Your task to perform on an android device: Is it going to rain tomorrow? Image 0: 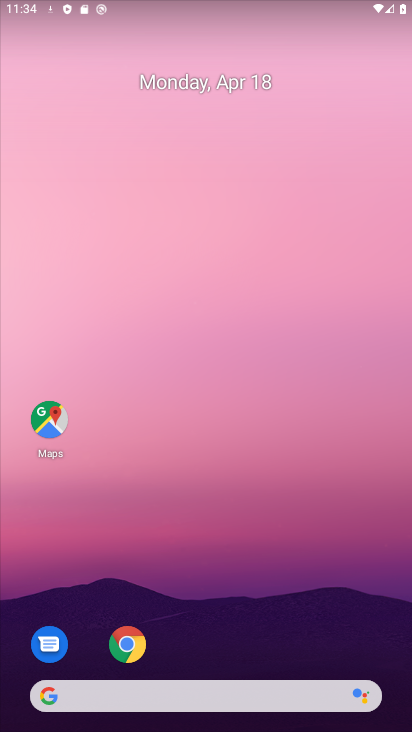
Step 0: drag from (28, 288) to (379, 299)
Your task to perform on an android device: Is it going to rain tomorrow? Image 1: 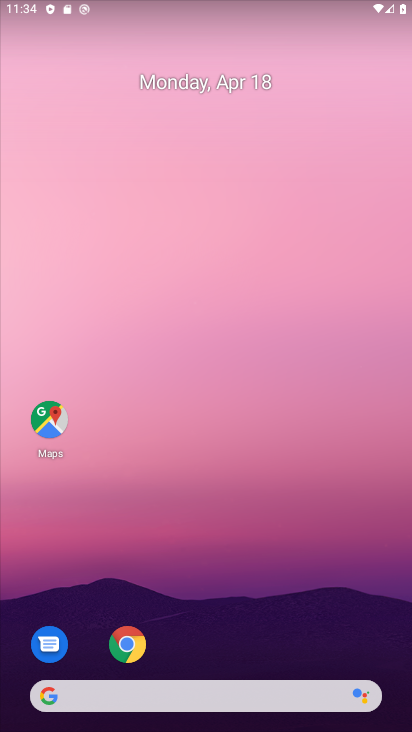
Step 1: drag from (13, 298) to (398, 320)
Your task to perform on an android device: Is it going to rain tomorrow? Image 2: 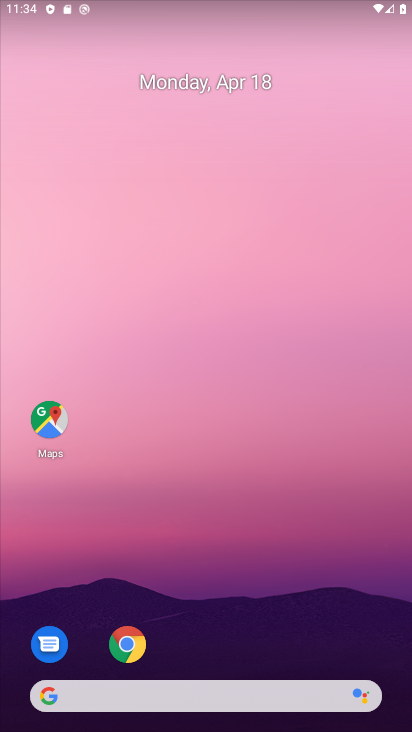
Step 2: drag from (1, 344) to (362, 336)
Your task to perform on an android device: Is it going to rain tomorrow? Image 3: 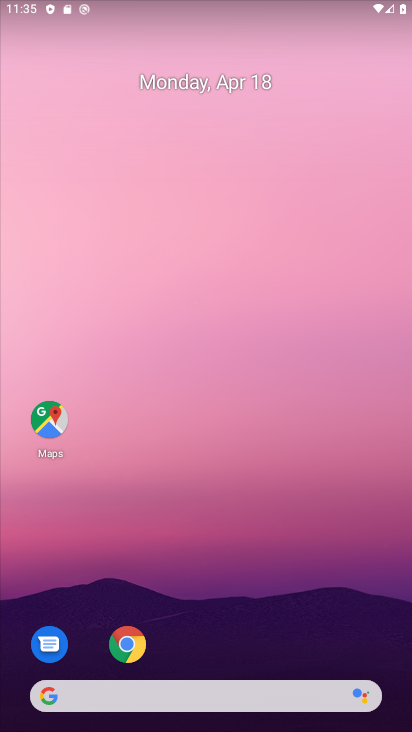
Step 3: drag from (251, 327) to (388, 326)
Your task to perform on an android device: Is it going to rain tomorrow? Image 4: 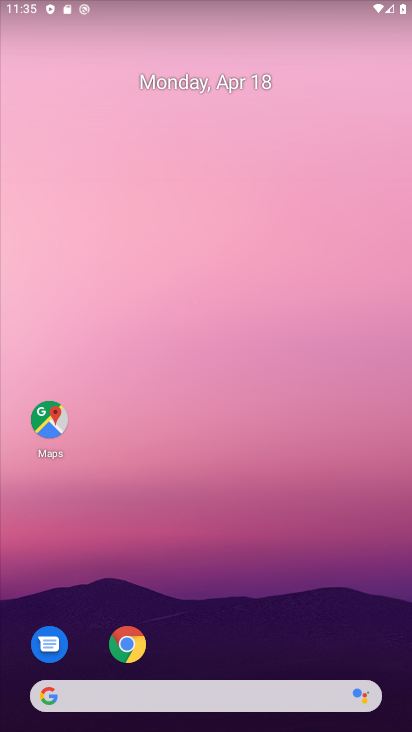
Step 4: drag from (140, 549) to (380, 548)
Your task to perform on an android device: Is it going to rain tomorrow? Image 5: 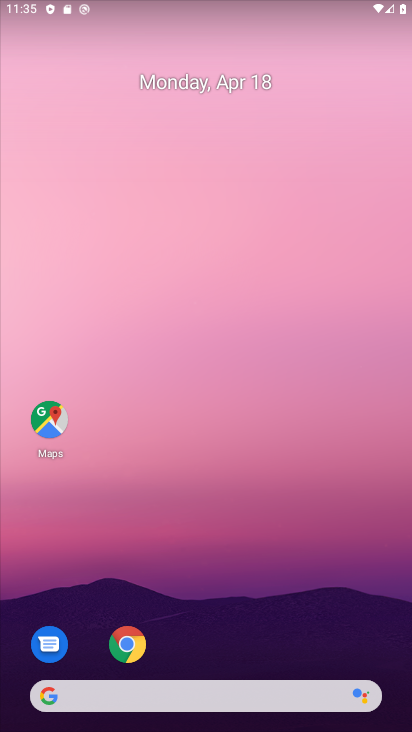
Step 5: drag from (114, 499) to (386, 576)
Your task to perform on an android device: Is it going to rain tomorrow? Image 6: 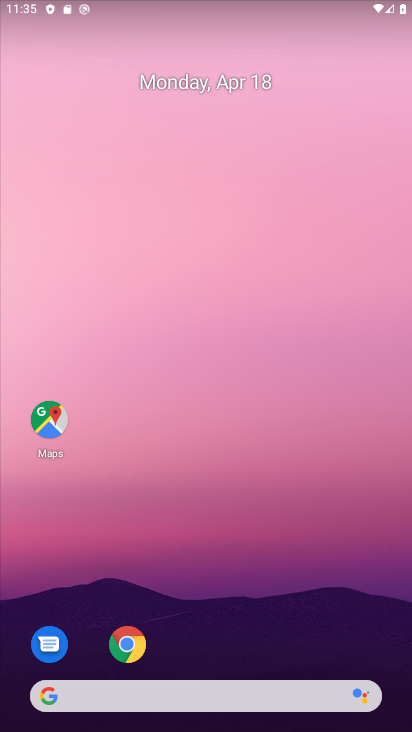
Step 6: click (140, 703)
Your task to perform on an android device: Is it going to rain tomorrow? Image 7: 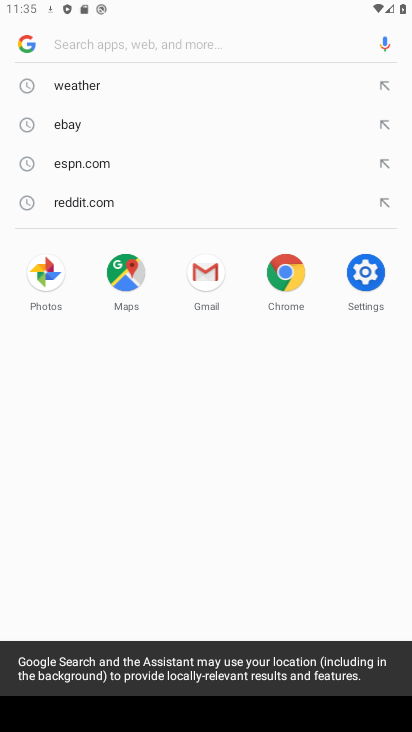
Step 7: click (111, 81)
Your task to perform on an android device: Is it going to rain tomorrow? Image 8: 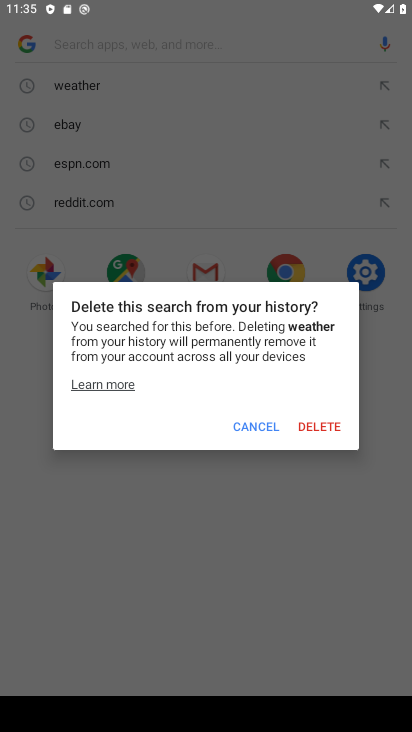
Step 8: click (259, 427)
Your task to perform on an android device: Is it going to rain tomorrow? Image 9: 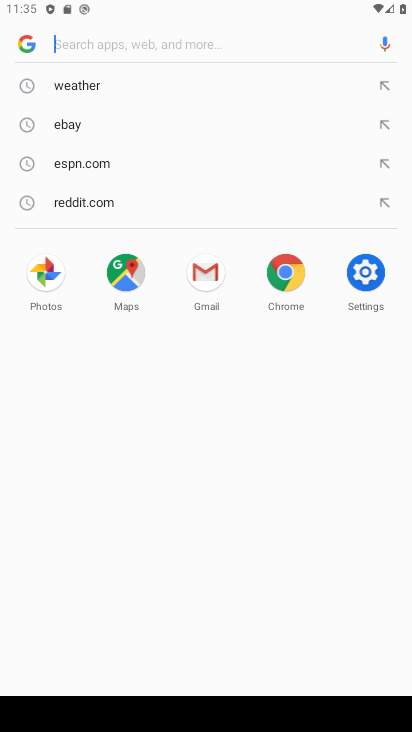
Step 9: click (208, 91)
Your task to perform on an android device: Is it going to rain tomorrow? Image 10: 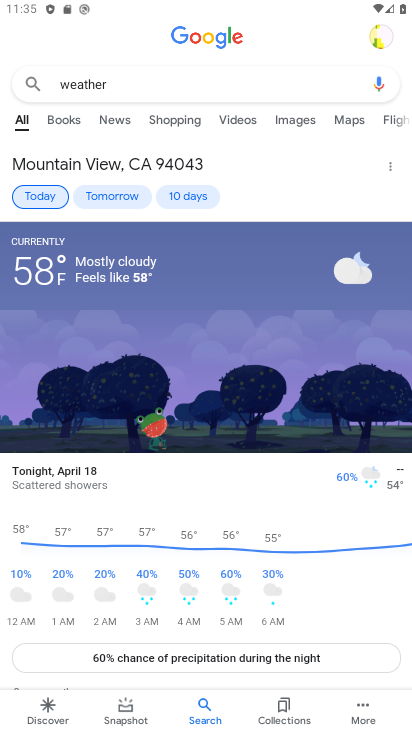
Step 10: click (100, 202)
Your task to perform on an android device: Is it going to rain tomorrow? Image 11: 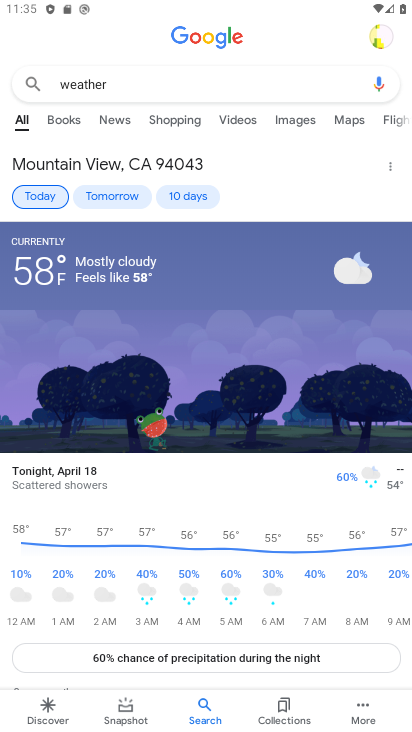
Step 11: click (118, 202)
Your task to perform on an android device: Is it going to rain tomorrow? Image 12: 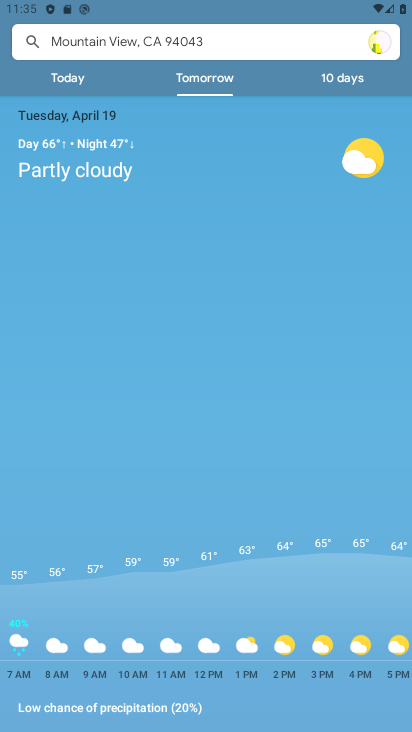
Step 12: task complete